Your task to perform on an android device: check android version Image 0: 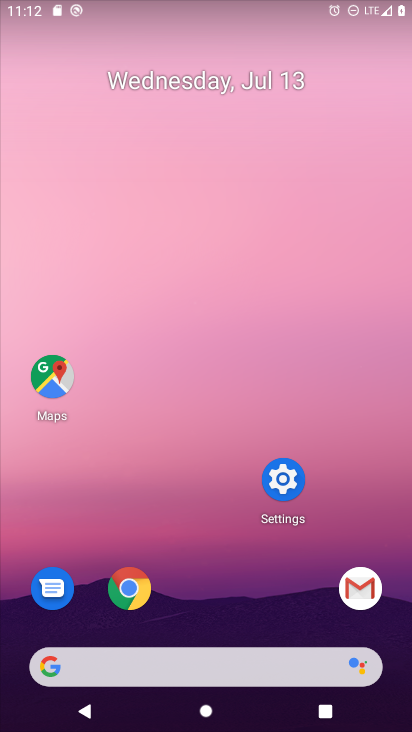
Step 0: press home button
Your task to perform on an android device: check android version Image 1: 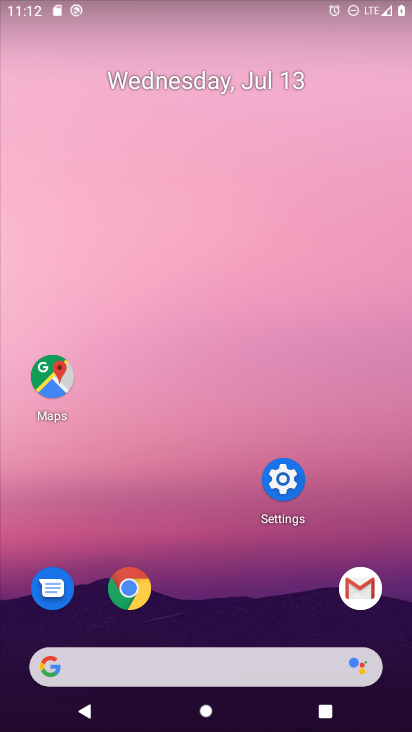
Step 1: click (281, 488)
Your task to perform on an android device: check android version Image 2: 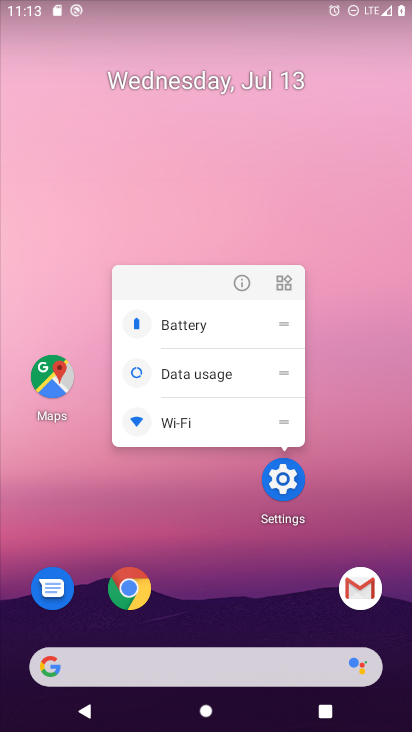
Step 2: click (280, 484)
Your task to perform on an android device: check android version Image 3: 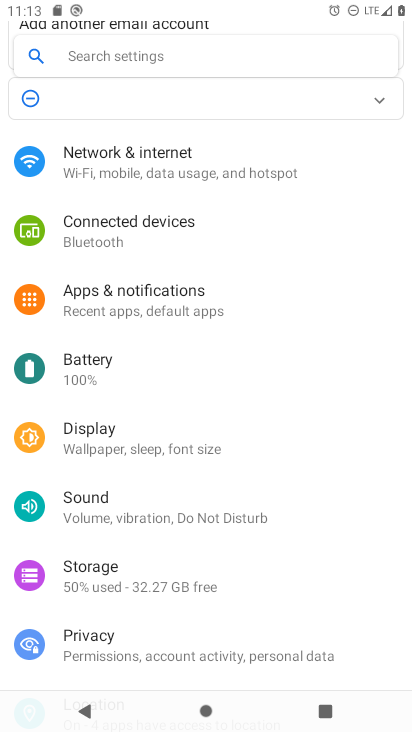
Step 3: click (84, 55)
Your task to perform on an android device: check android version Image 4: 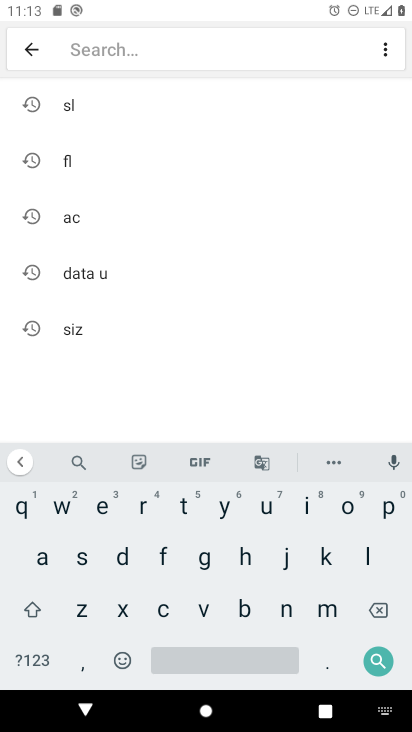
Step 4: click (35, 572)
Your task to perform on an android device: check android version Image 5: 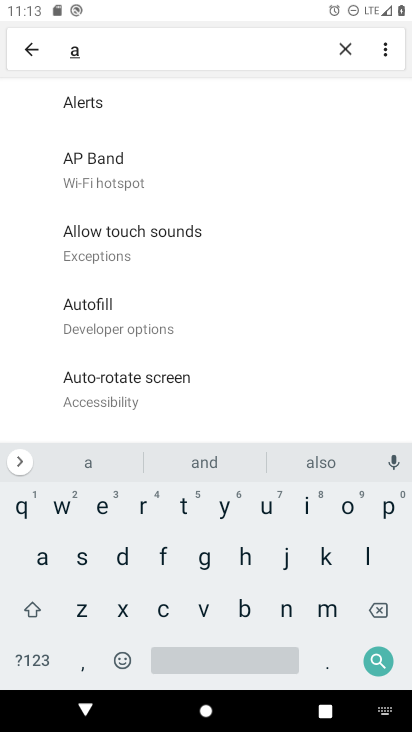
Step 5: click (281, 610)
Your task to perform on an android device: check android version Image 6: 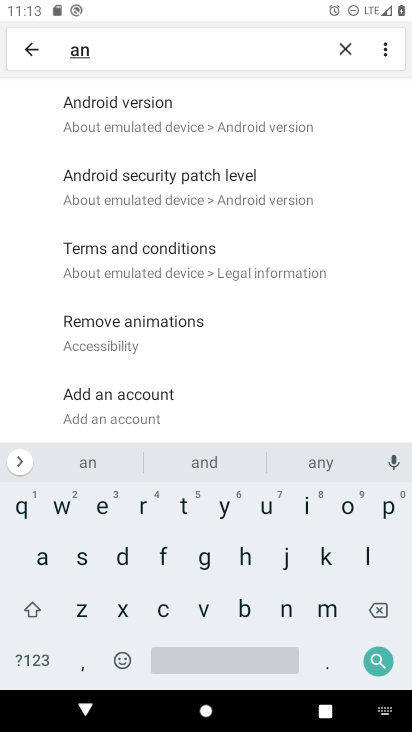
Step 6: click (130, 121)
Your task to perform on an android device: check android version Image 7: 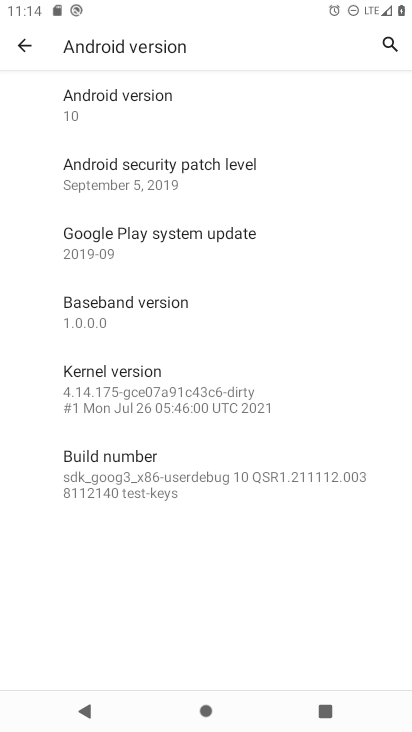
Step 7: task complete